Your task to perform on an android device: Set the phone to "Do not disturb". Image 0: 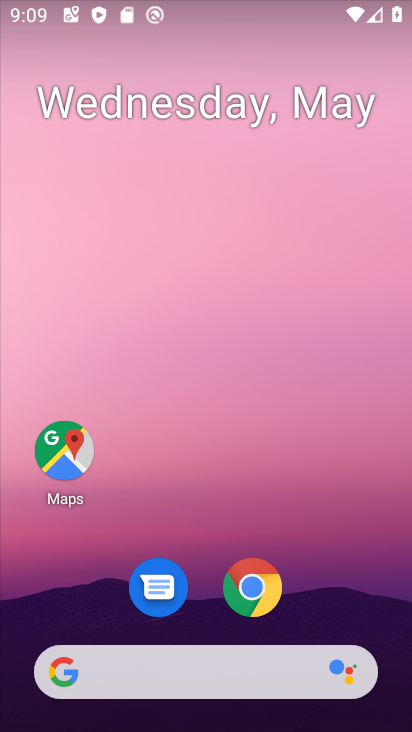
Step 0: drag from (195, 725) to (196, 245)
Your task to perform on an android device: Set the phone to "Do not disturb". Image 1: 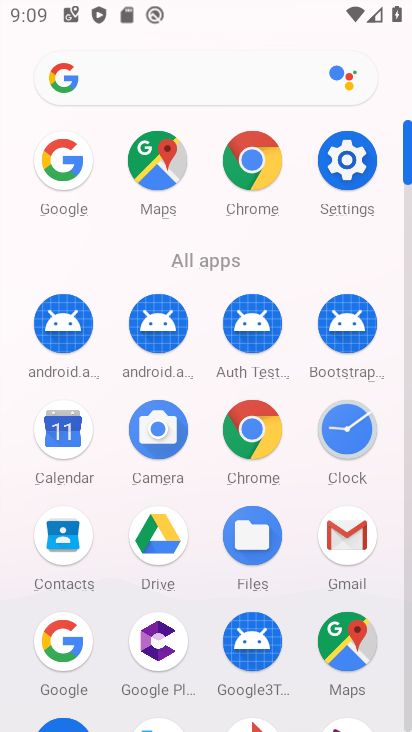
Step 1: click (350, 162)
Your task to perform on an android device: Set the phone to "Do not disturb". Image 2: 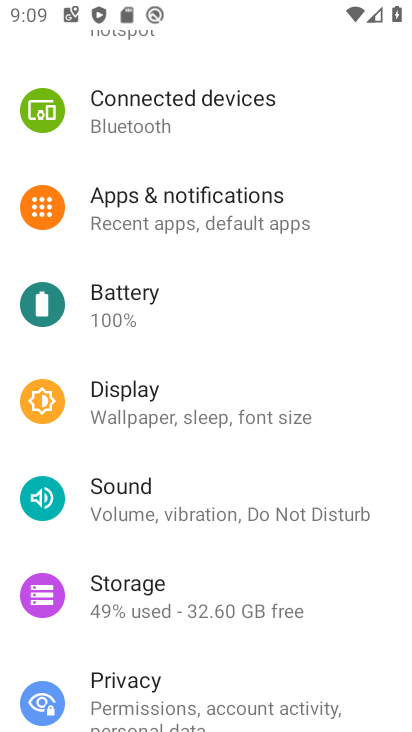
Step 2: click (189, 512)
Your task to perform on an android device: Set the phone to "Do not disturb". Image 3: 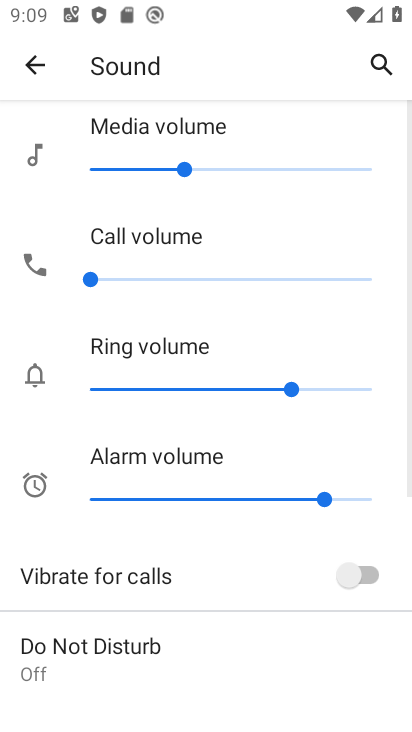
Step 3: drag from (205, 671) to (210, 259)
Your task to perform on an android device: Set the phone to "Do not disturb". Image 4: 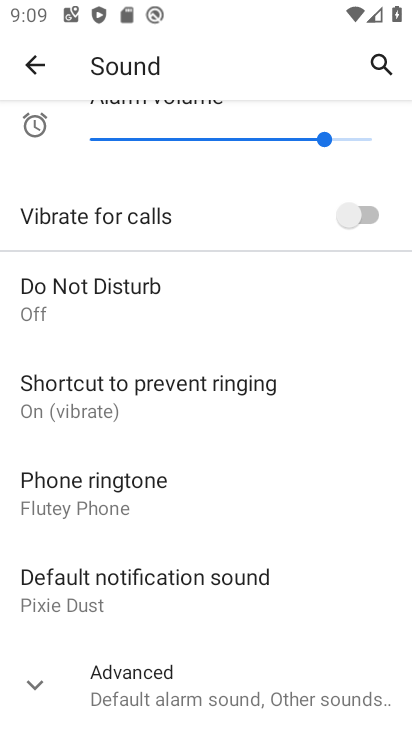
Step 4: click (78, 281)
Your task to perform on an android device: Set the phone to "Do not disturb". Image 5: 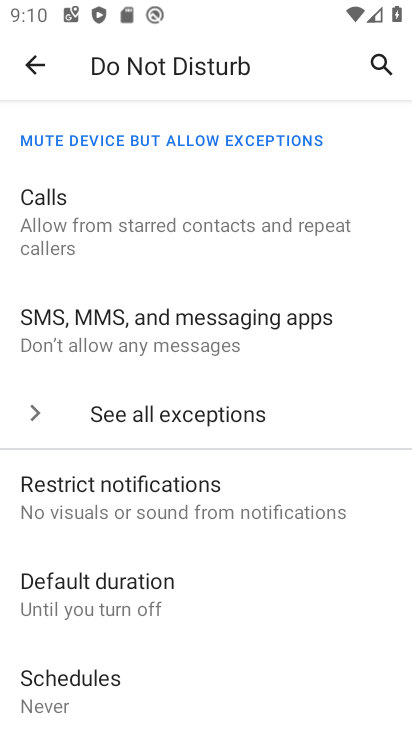
Step 5: drag from (162, 664) to (165, 341)
Your task to perform on an android device: Set the phone to "Do not disturb". Image 6: 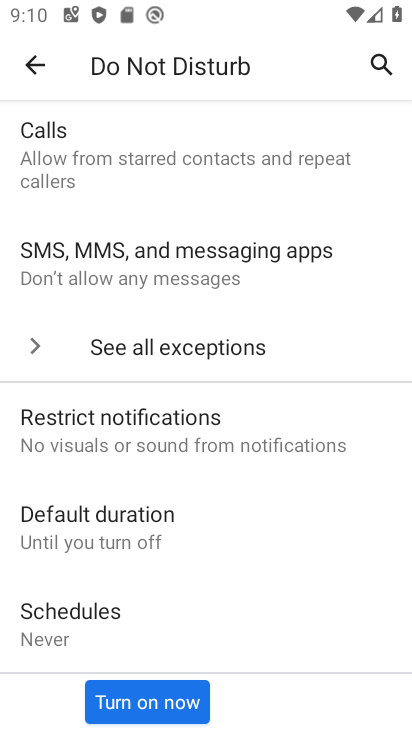
Step 6: click (171, 702)
Your task to perform on an android device: Set the phone to "Do not disturb". Image 7: 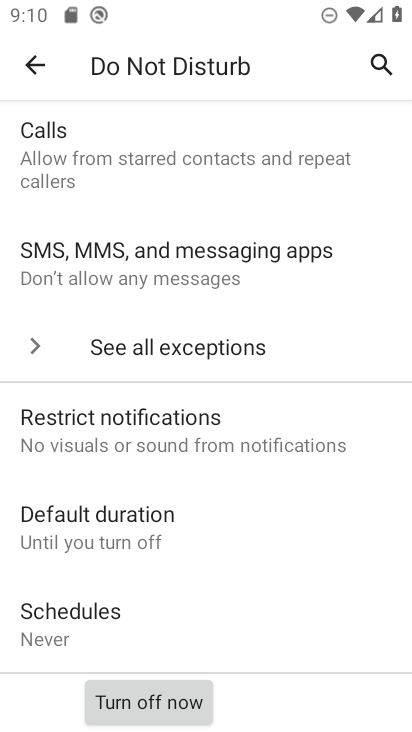
Step 7: task complete